Your task to perform on an android device: Go to privacy settings Image 0: 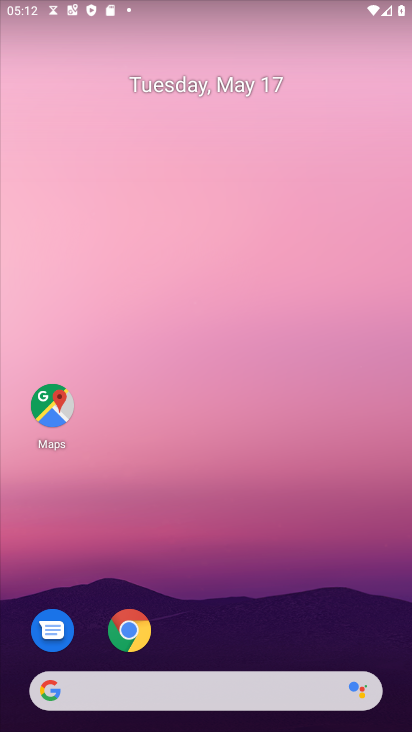
Step 0: drag from (243, 637) to (185, 126)
Your task to perform on an android device: Go to privacy settings Image 1: 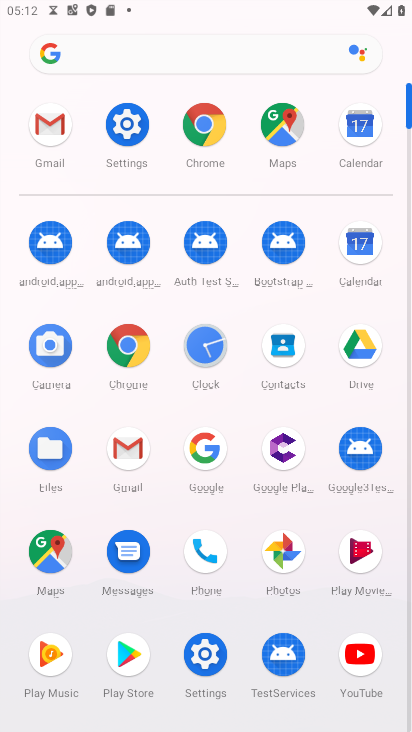
Step 1: click (202, 128)
Your task to perform on an android device: Go to privacy settings Image 2: 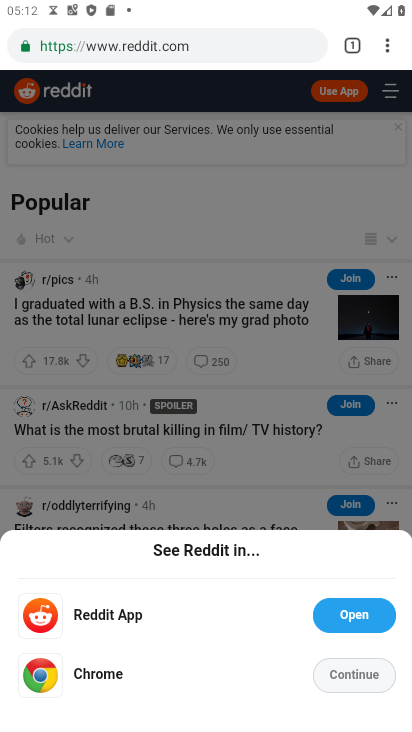
Step 2: drag from (385, 46) to (244, 553)
Your task to perform on an android device: Go to privacy settings Image 3: 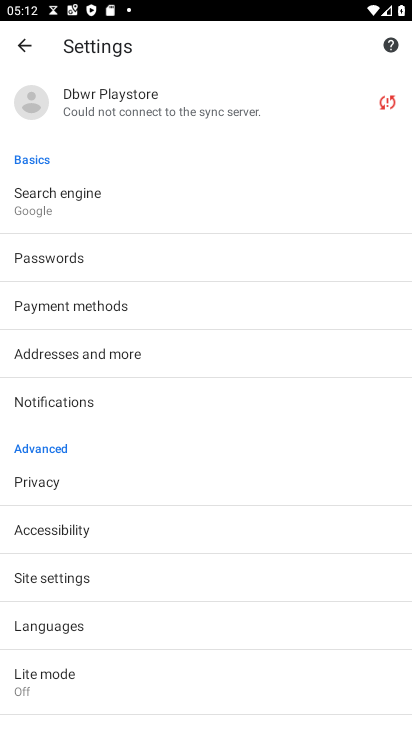
Step 3: click (60, 482)
Your task to perform on an android device: Go to privacy settings Image 4: 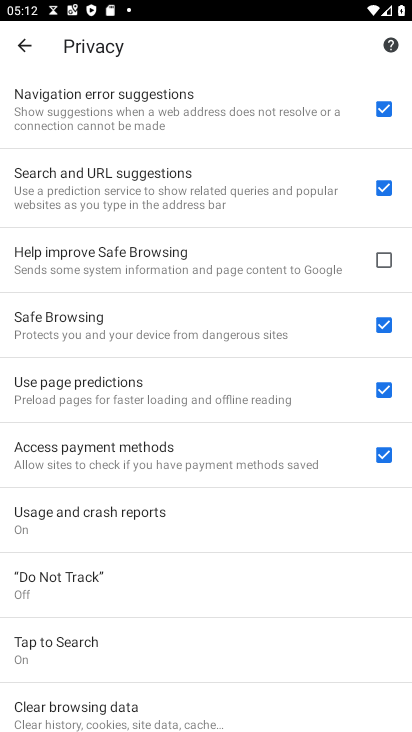
Step 4: task complete